Your task to perform on an android device: Open privacy settings Image 0: 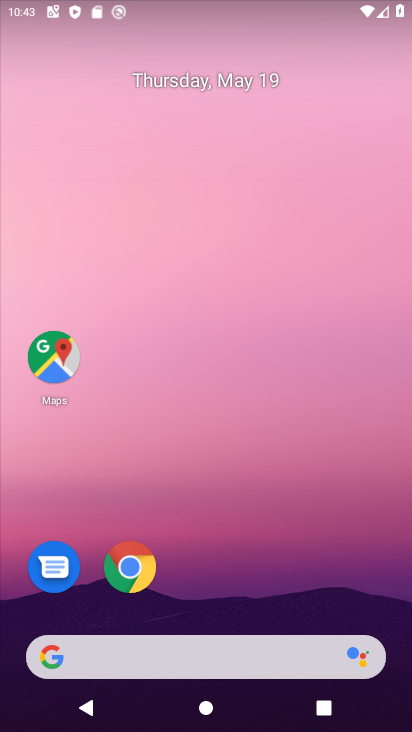
Step 0: drag from (389, 604) to (323, 98)
Your task to perform on an android device: Open privacy settings Image 1: 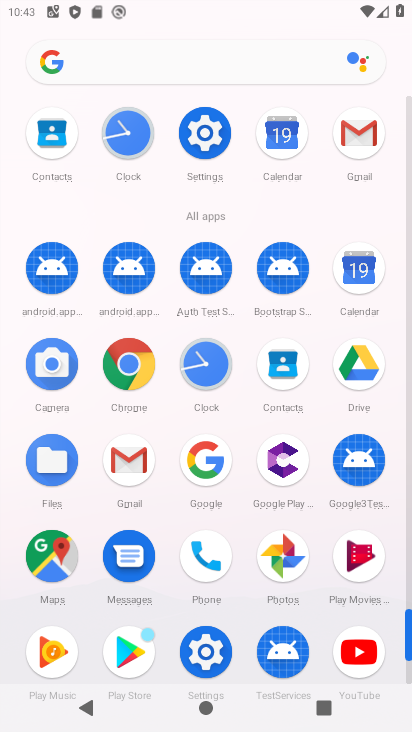
Step 1: click (210, 655)
Your task to perform on an android device: Open privacy settings Image 2: 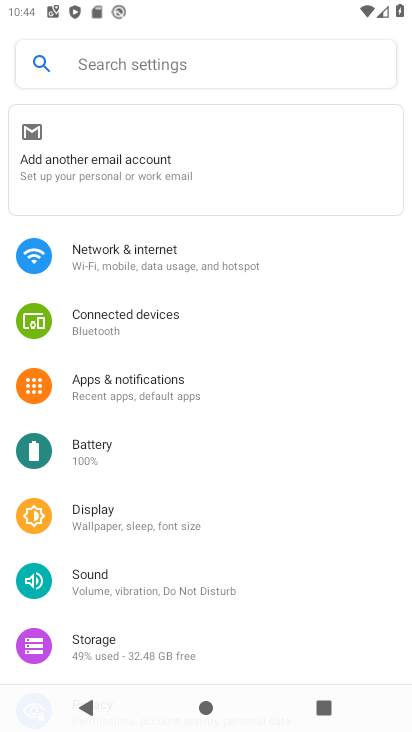
Step 2: drag from (138, 630) to (205, 253)
Your task to perform on an android device: Open privacy settings Image 3: 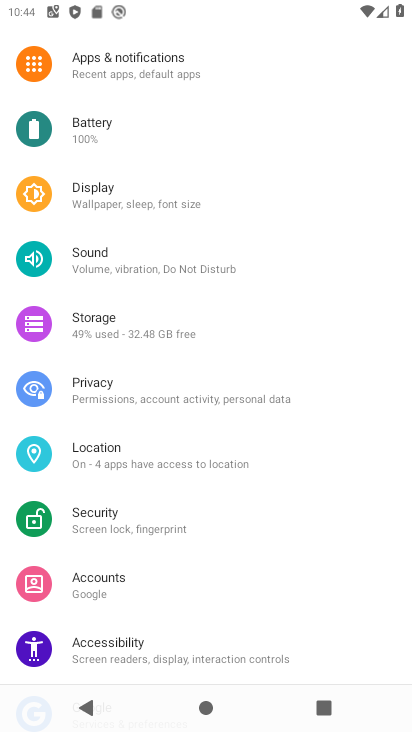
Step 3: click (101, 387)
Your task to perform on an android device: Open privacy settings Image 4: 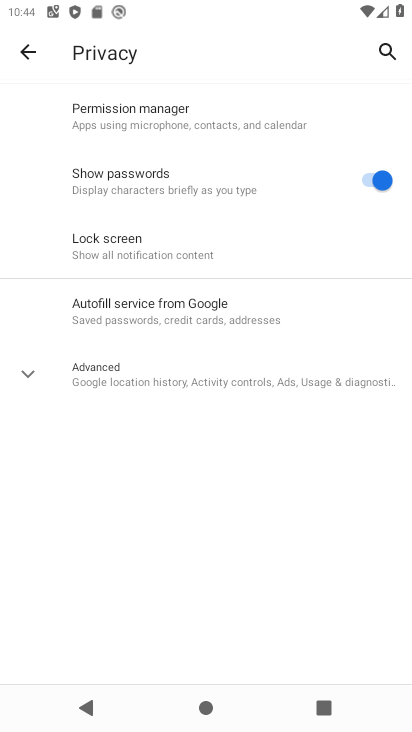
Step 4: click (14, 367)
Your task to perform on an android device: Open privacy settings Image 5: 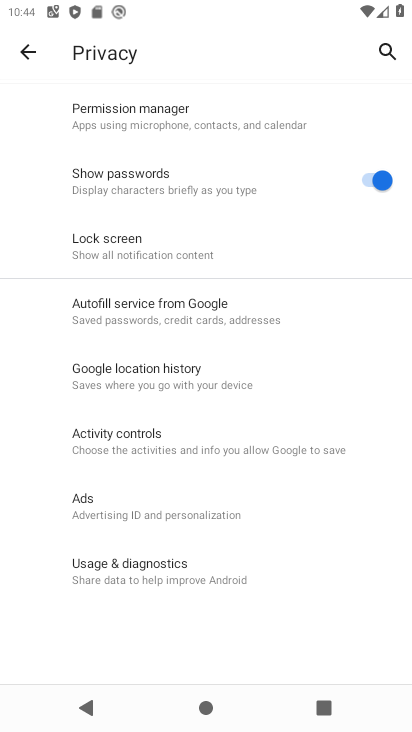
Step 5: task complete